Your task to perform on an android device: Open settings on Google Maps Image 0: 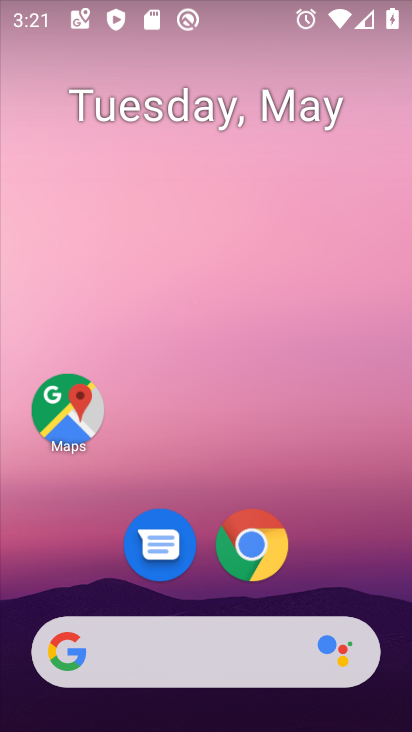
Step 0: drag from (241, 637) to (227, 197)
Your task to perform on an android device: Open settings on Google Maps Image 1: 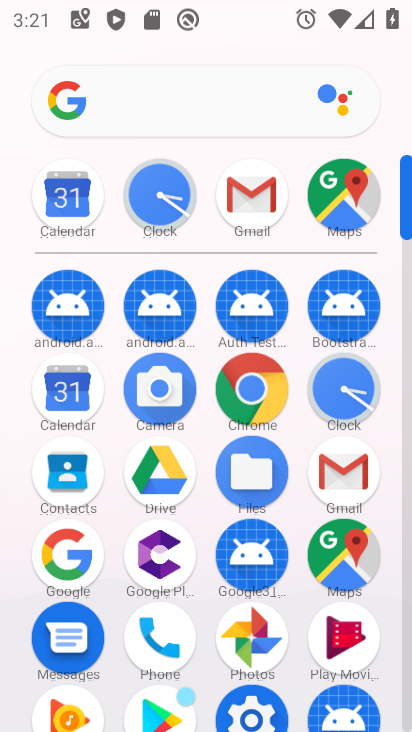
Step 1: click (245, 704)
Your task to perform on an android device: Open settings on Google Maps Image 2: 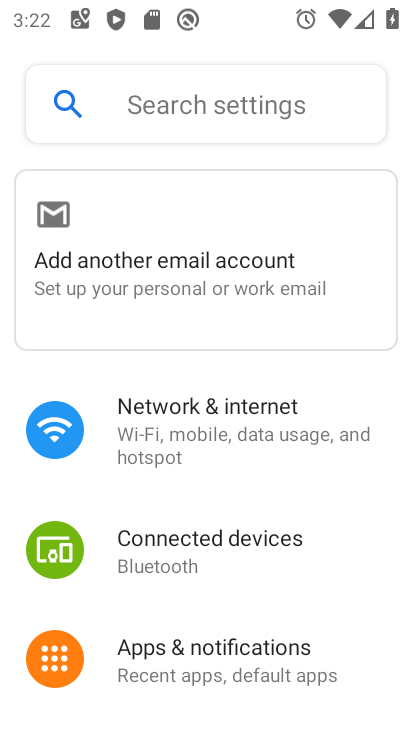
Step 2: drag from (338, 581) to (324, 168)
Your task to perform on an android device: Open settings on Google Maps Image 3: 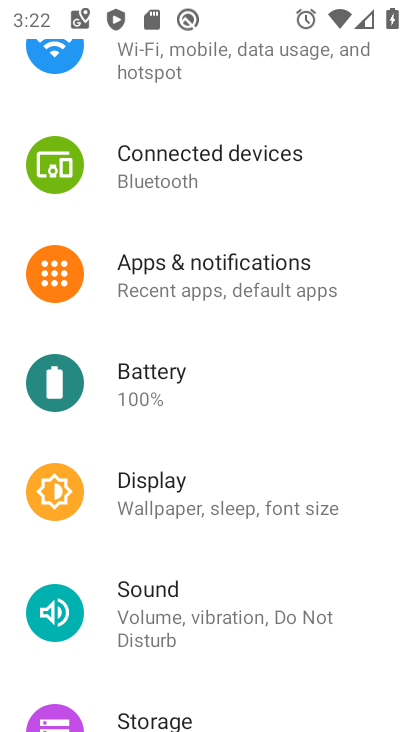
Step 3: press home button
Your task to perform on an android device: Open settings on Google Maps Image 4: 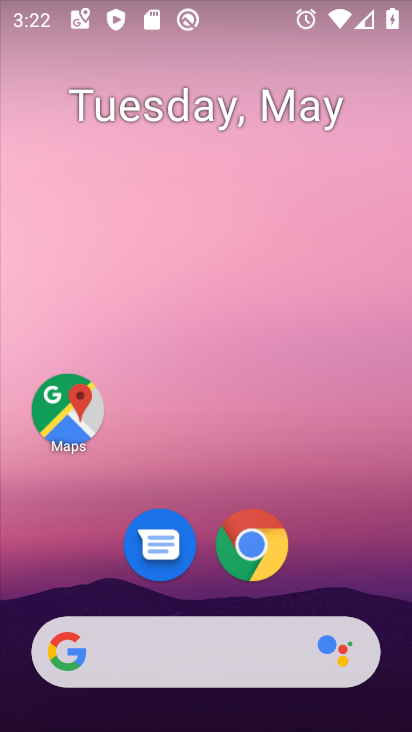
Step 4: drag from (354, 450) to (351, 174)
Your task to perform on an android device: Open settings on Google Maps Image 5: 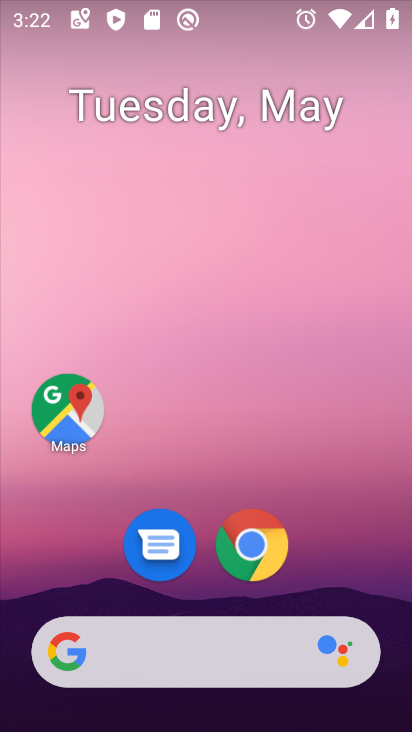
Step 5: drag from (227, 638) to (210, 237)
Your task to perform on an android device: Open settings on Google Maps Image 6: 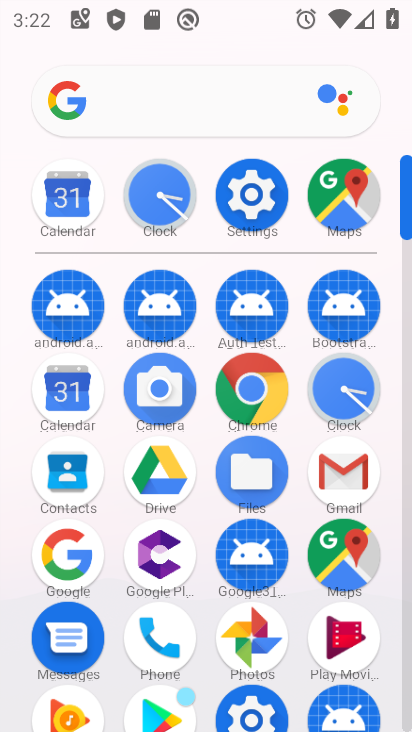
Step 6: click (321, 545)
Your task to perform on an android device: Open settings on Google Maps Image 7: 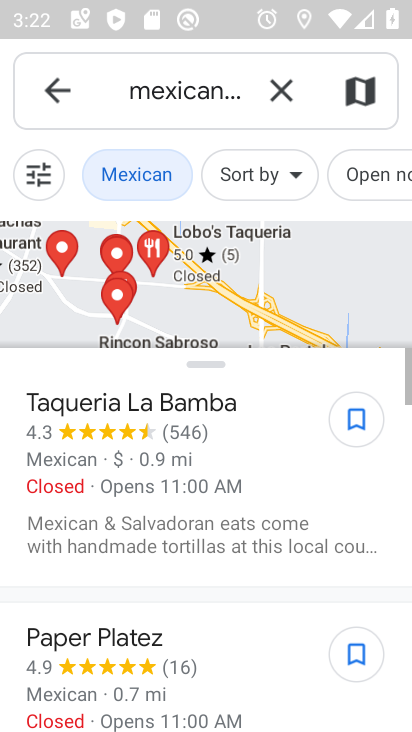
Step 7: click (68, 93)
Your task to perform on an android device: Open settings on Google Maps Image 8: 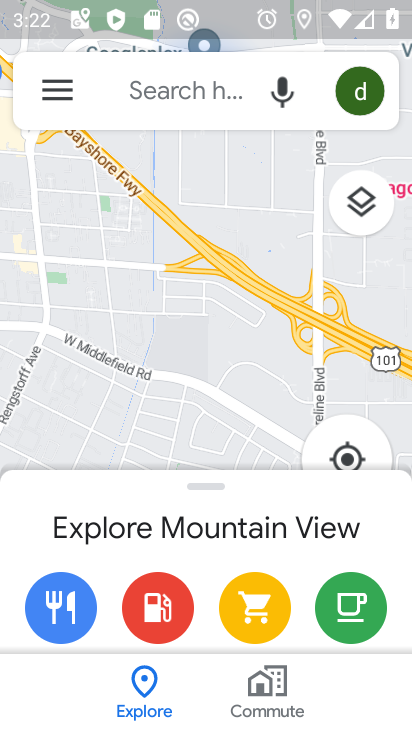
Step 8: click (62, 100)
Your task to perform on an android device: Open settings on Google Maps Image 9: 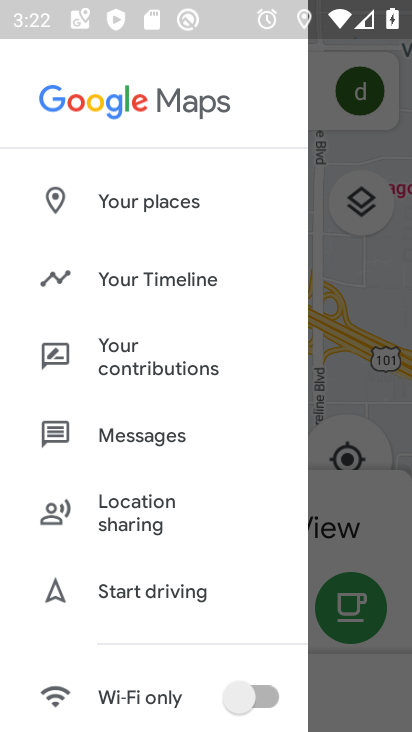
Step 9: drag from (159, 592) to (129, 129)
Your task to perform on an android device: Open settings on Google Maps Image 10: 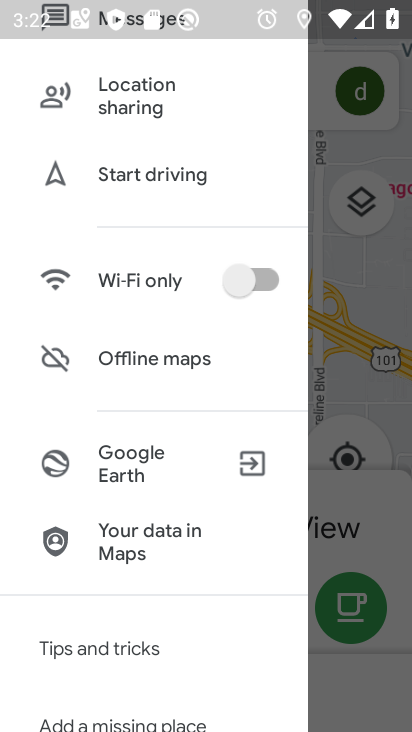
Step 10: drag from (169, 591) to (128, 118)
Your task to perform on an android device: Open settings on Google Maps Image 11: 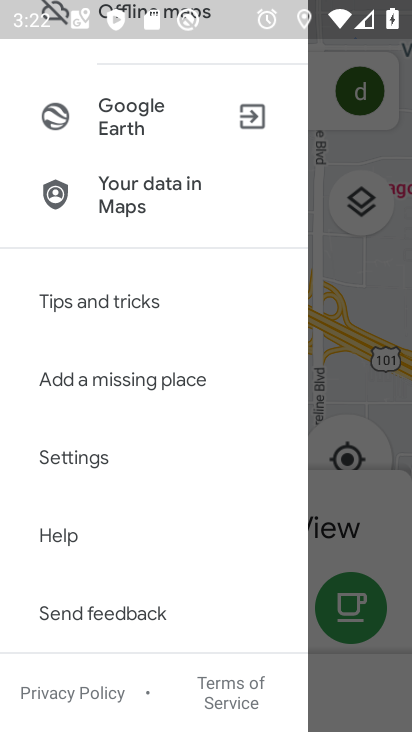
Step 11: click (110, 461)
Your task to perform on an android device: Open settings on Google Maps Image 12: 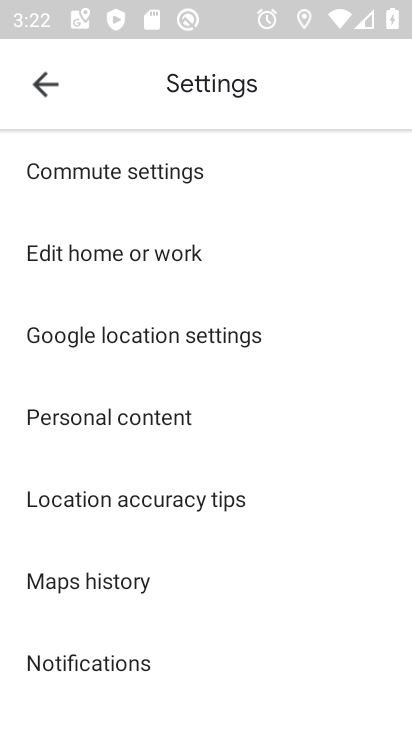
Step 12: task complete